Your task to perform on an android device: Go to Maps Image 0: 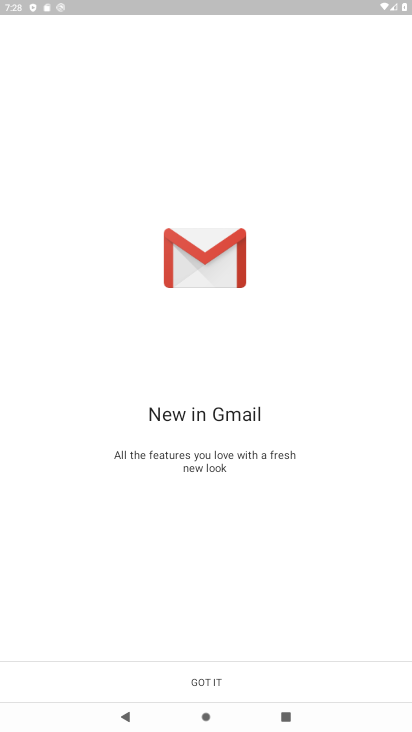
Step 0: press home button
Your task to perform on an android device: Go to Maps Image 1: 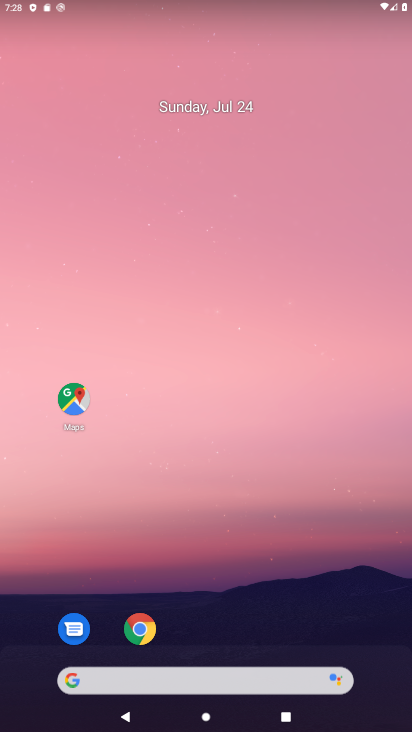
Step 1: drag from (228, 624) to (347, 37)
Your task to perform on an android device: Go to Maps Image 2: 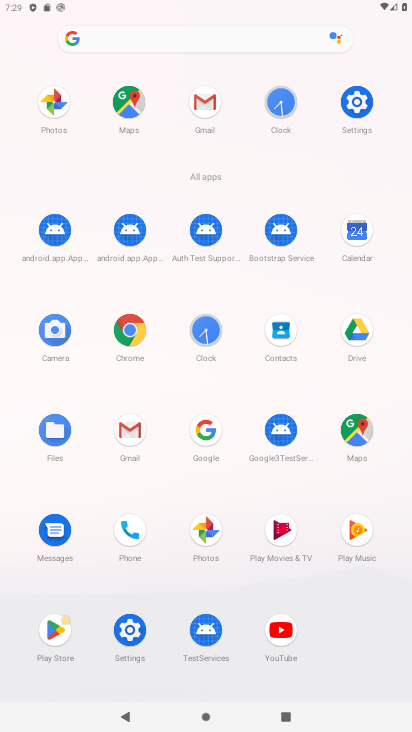
Step 2: click (362, 440)
Your task to perform on an android device: Go to Maps Image 3: 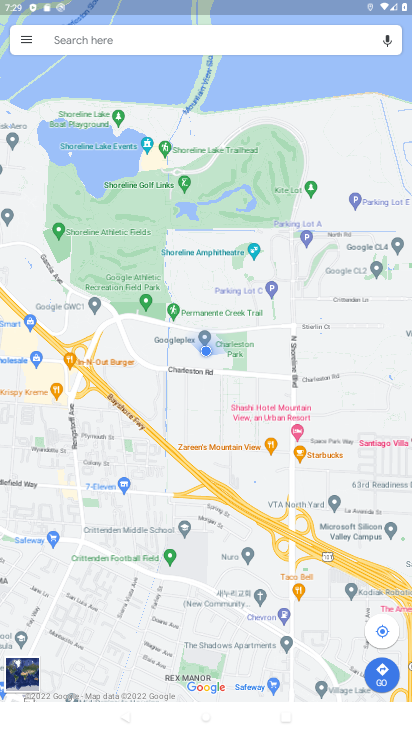
Step 3: task complete